Your task to perform on an android device: move an email to a new category in the gmail app Image 0: 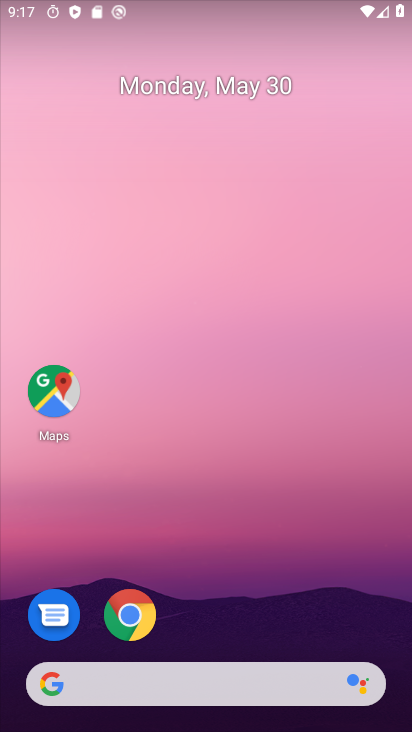
Step 0: click (206, 727)
Your task to perform on an android device: move an email to a new category in the gmail app Image 1: 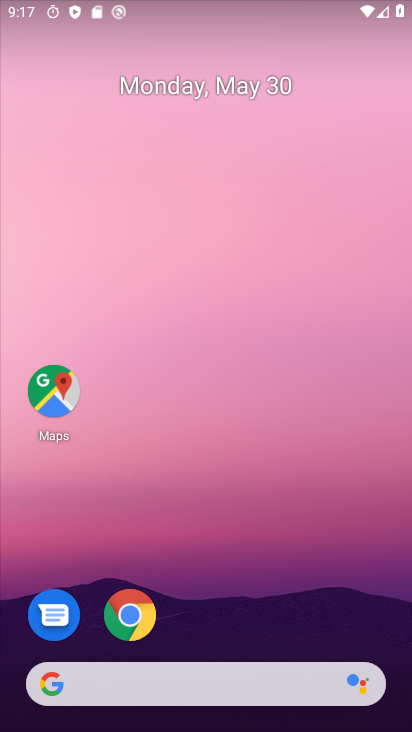
Step 1: drag from (188, 720) to (227, 202)
Your task to perform on an android device: move an email to a new category in the gmail app Image 2: 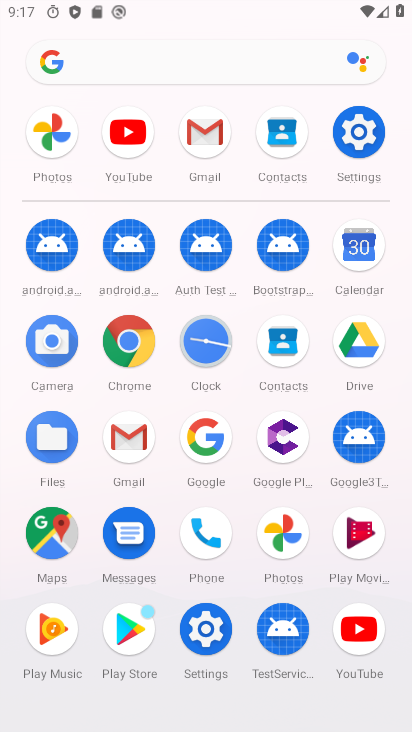
Step 2: click (125, 458)
Your task to perform on an android device: move an email to a new category in the gmail app Image 3: 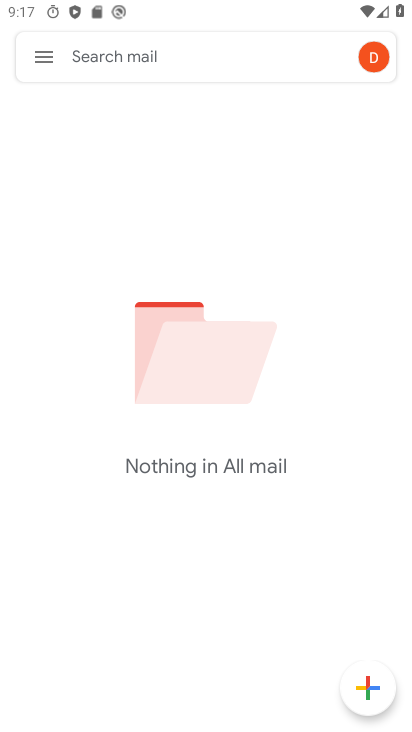
Step 3: click (47, 44)
Your task to perform on an android device: move an email to a new category in the gmail app Image 4: 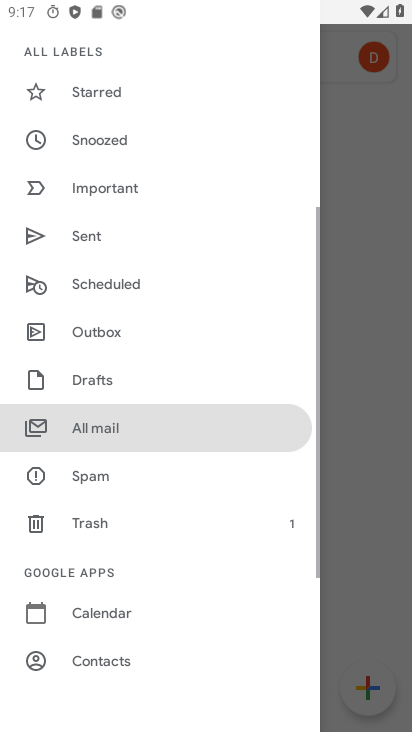
Step 4: drag from (164, 126) to (125, 456)
Your task to perform on an android device: move an email to a new category in the gmail app Image 5: 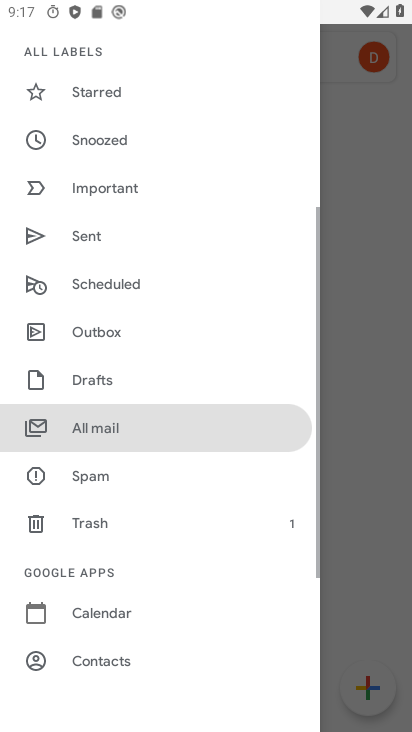
Step 5: drag from (178, 96) to (174, 494)
Your task to perform on an android device: move an email to a new category in the gmail app Image 6: 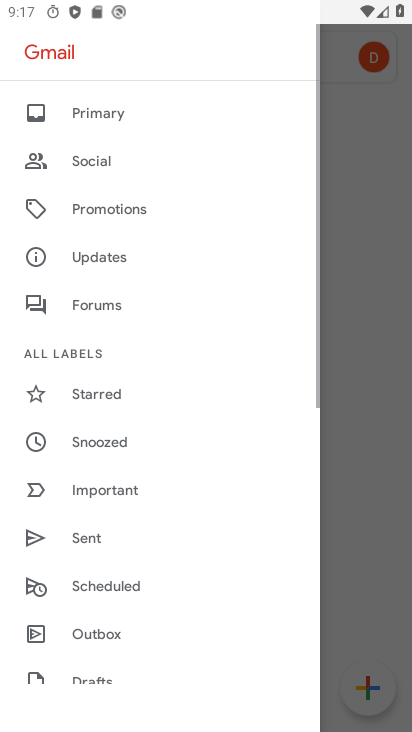
Step 6: click (115, 105)
Your task to perform on an android device: move an email to a new category in the gmail app Image 7: 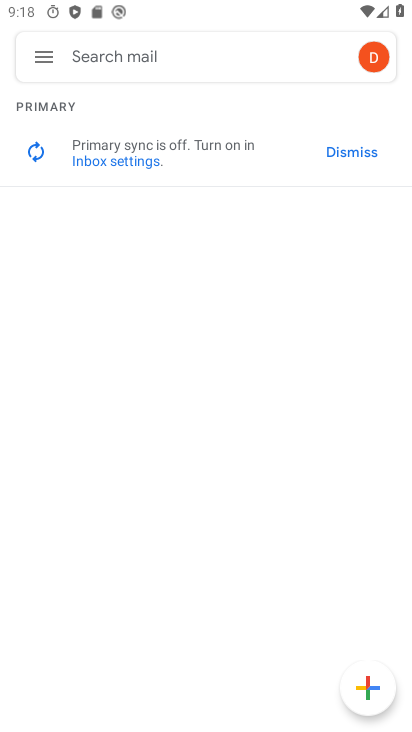
Step 7: task complete